Your task to perform on an android device: turn on location history Image 0: 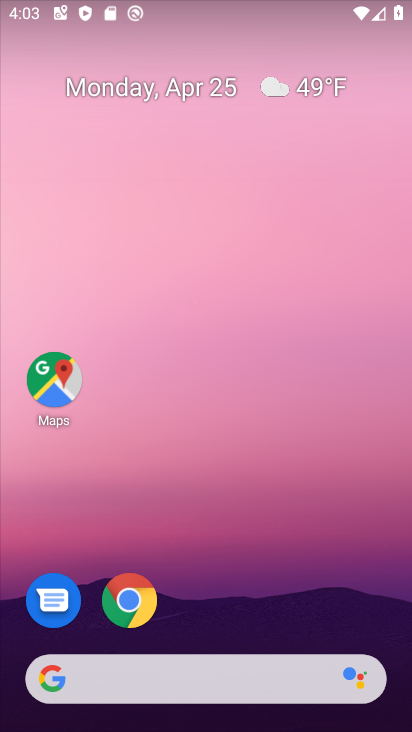
Step 0: drag from (235, 607) to (242, 23)
Your task to perform on an android device: turn on location history Image 1: 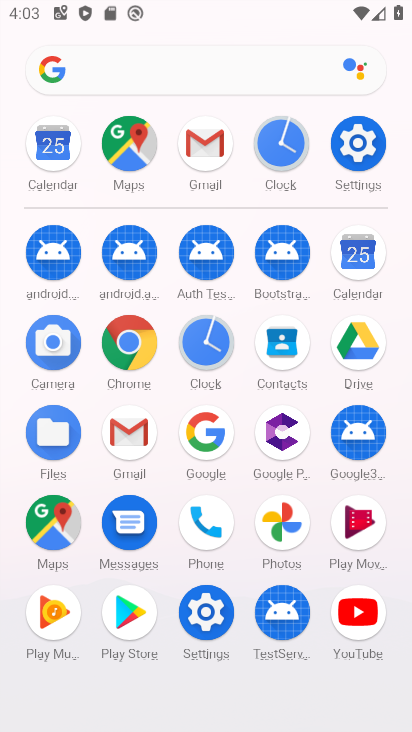
Step 1: click (356, 138)
Your task to perform on an android device: turn on location history Image 2: 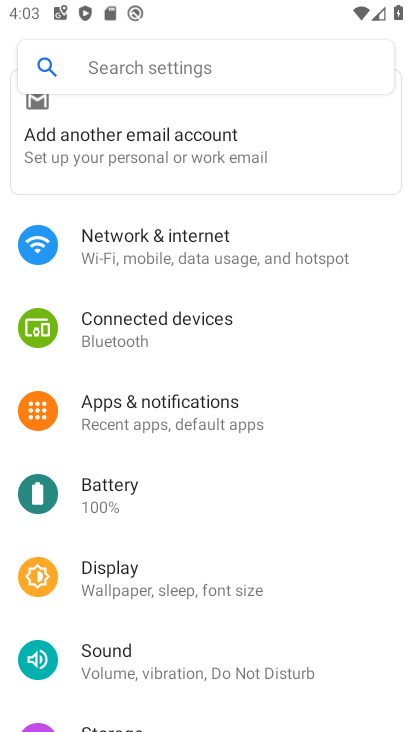
Step 2: drag from (299, 592) to (301, 172)
Your task to perform on an android device: turn on location history Image 3: 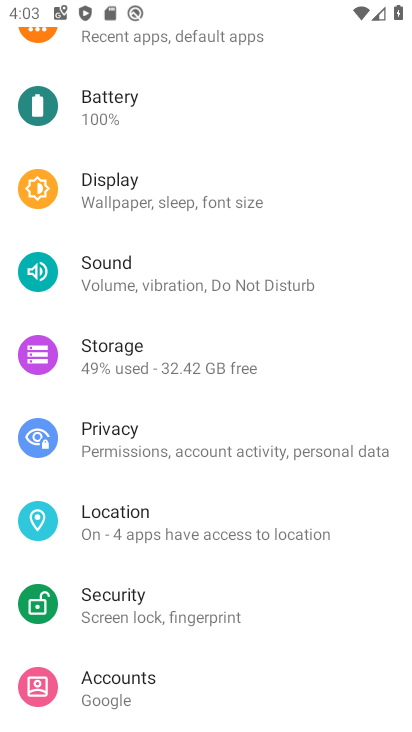
Step 3: click (188, 516)
Your task to perform on an android device: turn on location history Image 4: 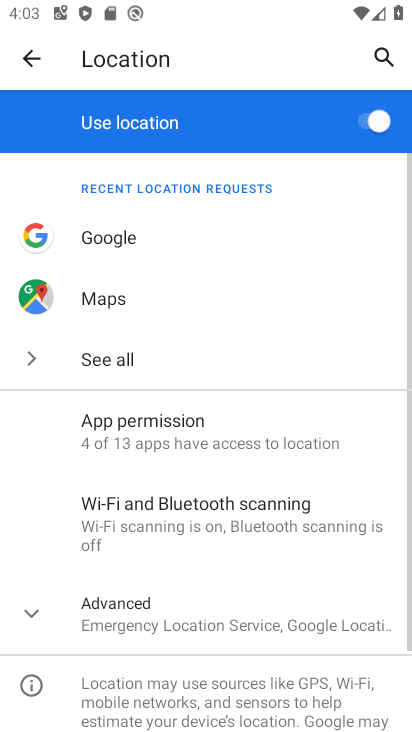
Step 4: drag from (278, 562) to (278, 254)
Your task to perform on an android device: turn on location history Image 5: 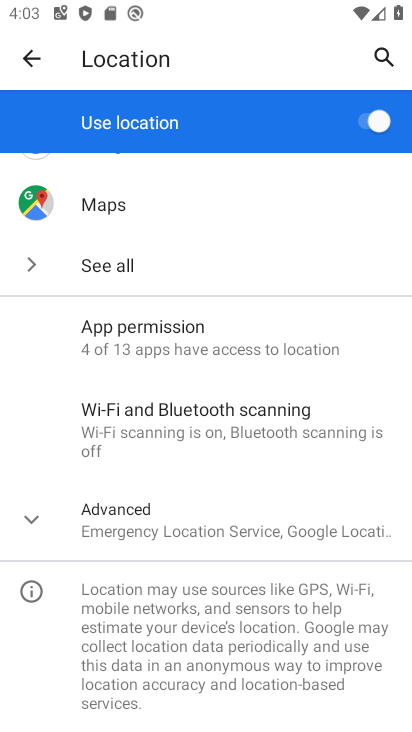
Step 5: click (31, 518)
Your task to perform on an android device: turn on location history Image 6: 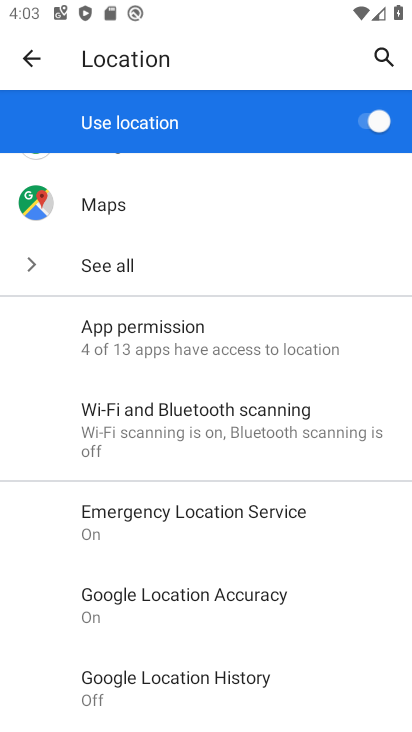
Step 6: click (147, 685)
Your task to perform on an android device: turn on location history Image 7: 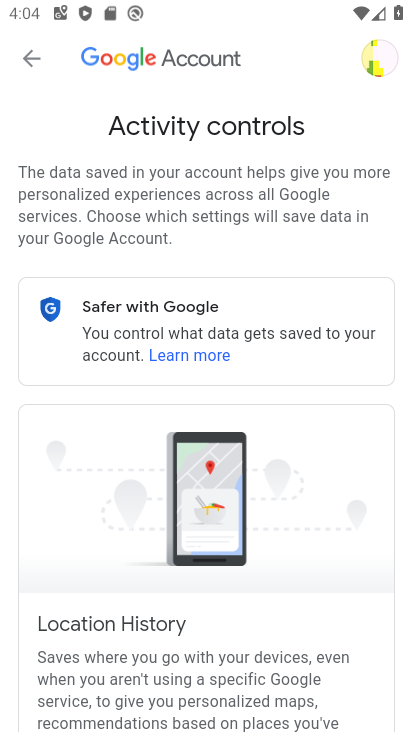
Step 7: task complete